Your task to perform on an android device: open a bookmark in the chrome app Image 0: 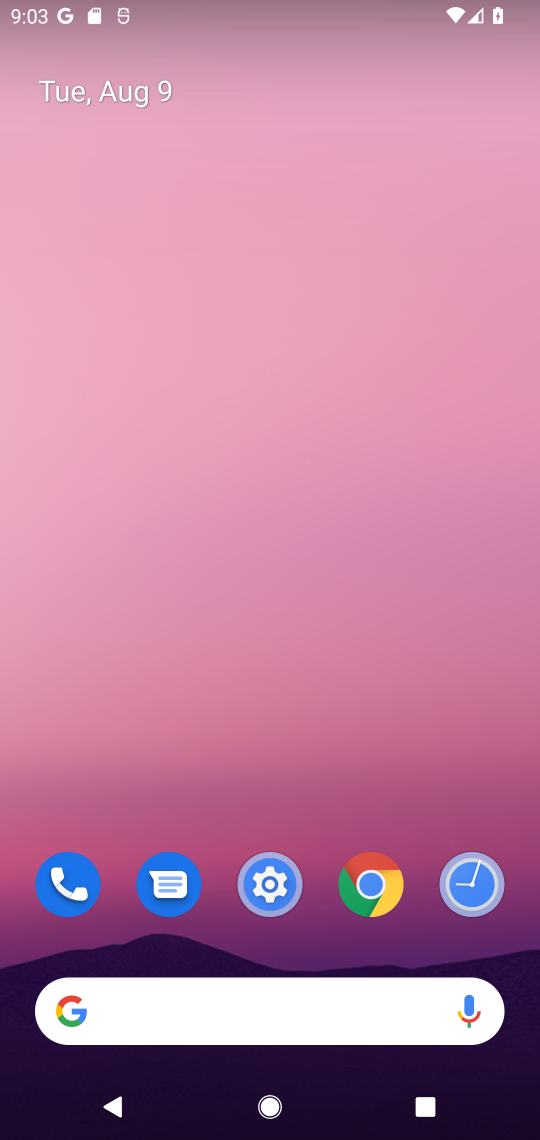
Step 0: drag from (324, 847) to (331, 215)
Your task to perform on an android device: open a bookmark in the chrome app Image 1: 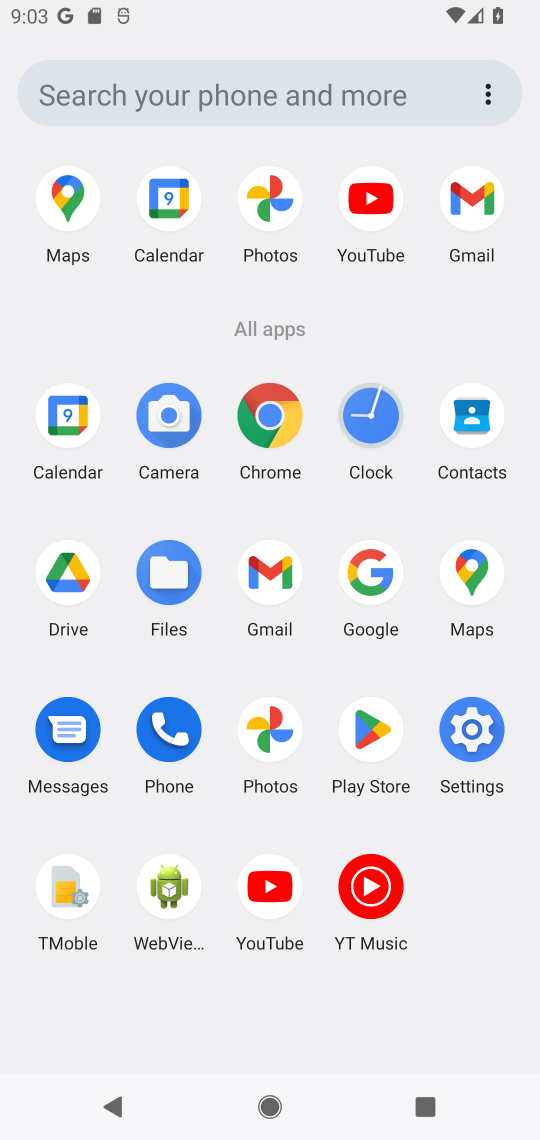
Step 1: click (279, 400)
Your task to perform on an android device: open a bookmark in the chrome app Image 2: 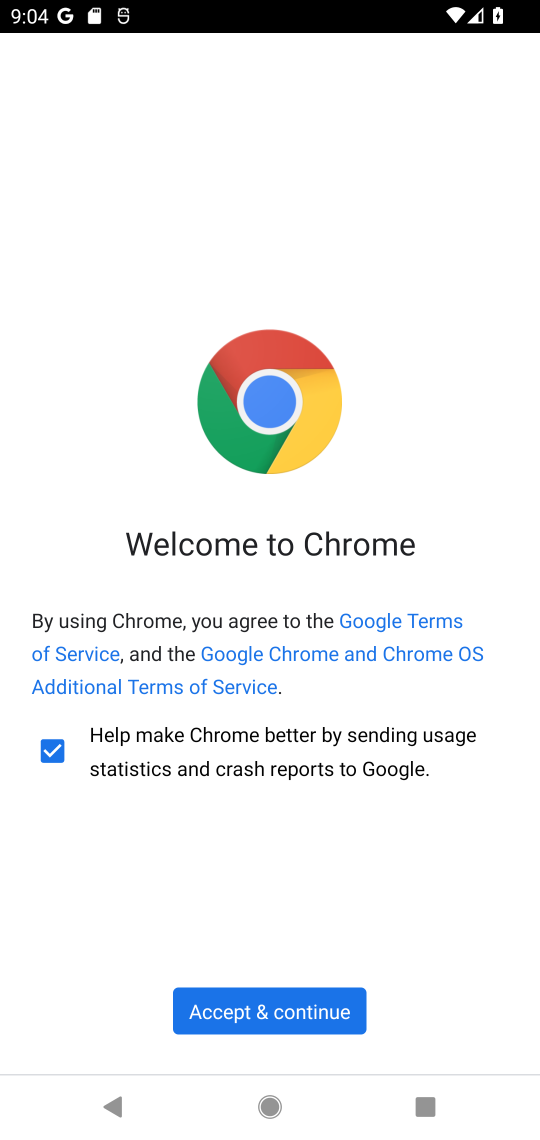
Step 2: click (287, 1000)
Your task to perform on an android device: open a bookmark in the chrome app Image 3: 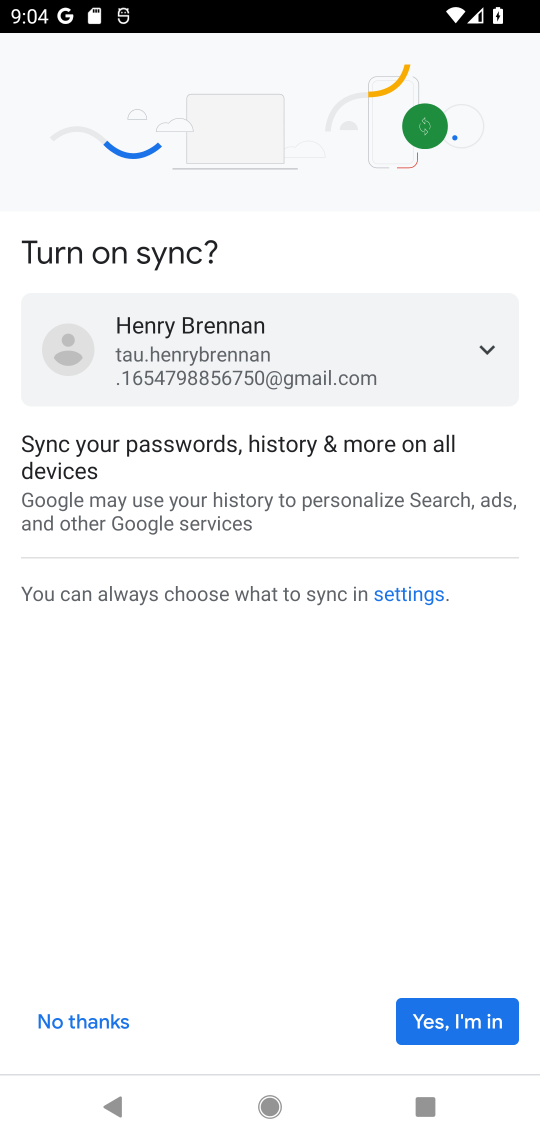
Step 3: click (458, 1031)
Your task to perform on an android device: open a bookmark in the chrome app Image 4: 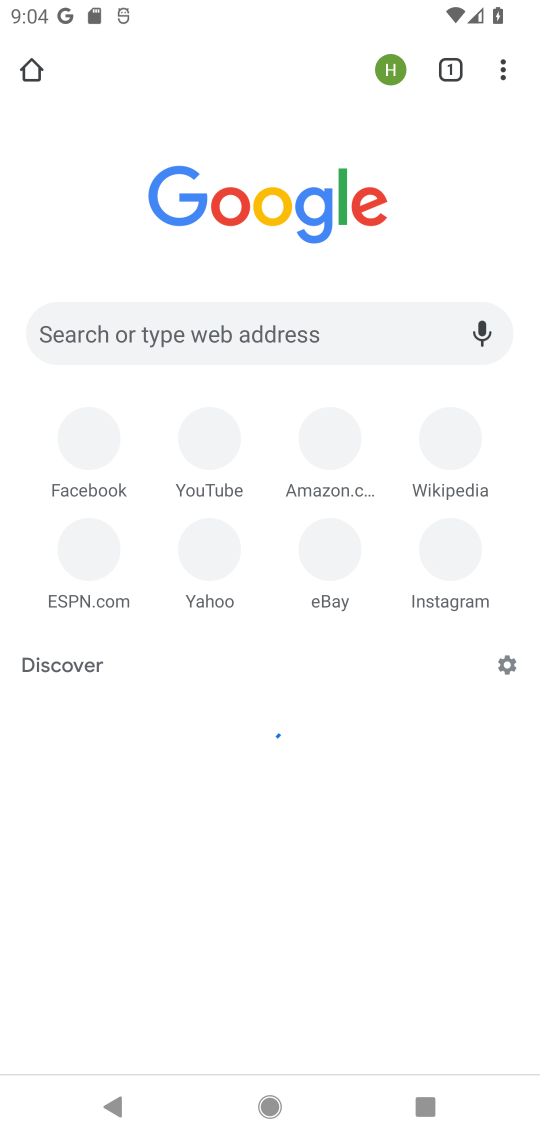
Step 4: click (512, 73)
Your task to perform on an android device: open a bookmark in the chrome app Image 5: 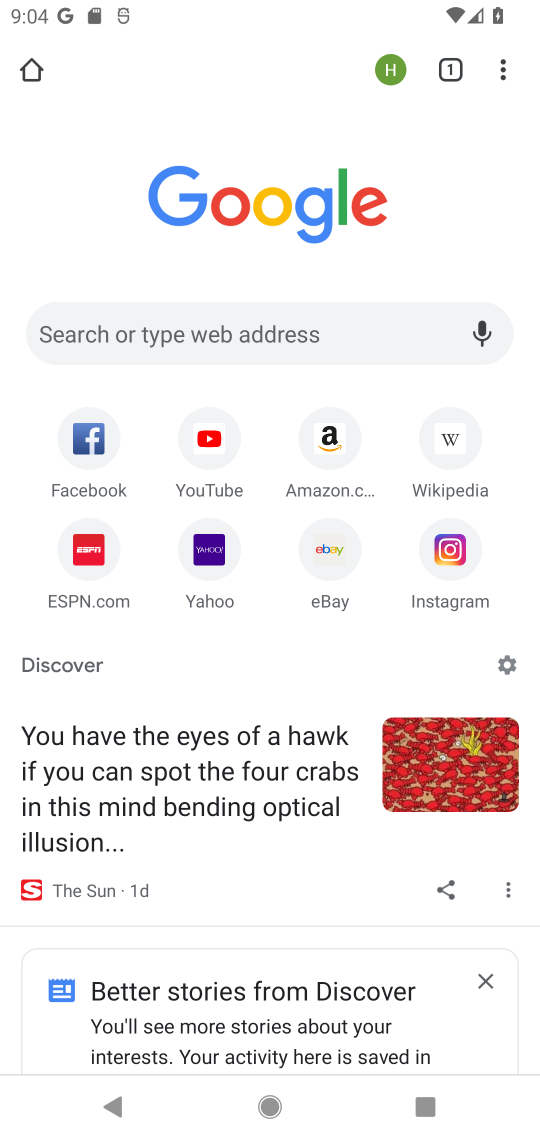
Step 5: click (500, 68)
Your task to perform on an android device: open a bookmark in the chrome app Image 6: 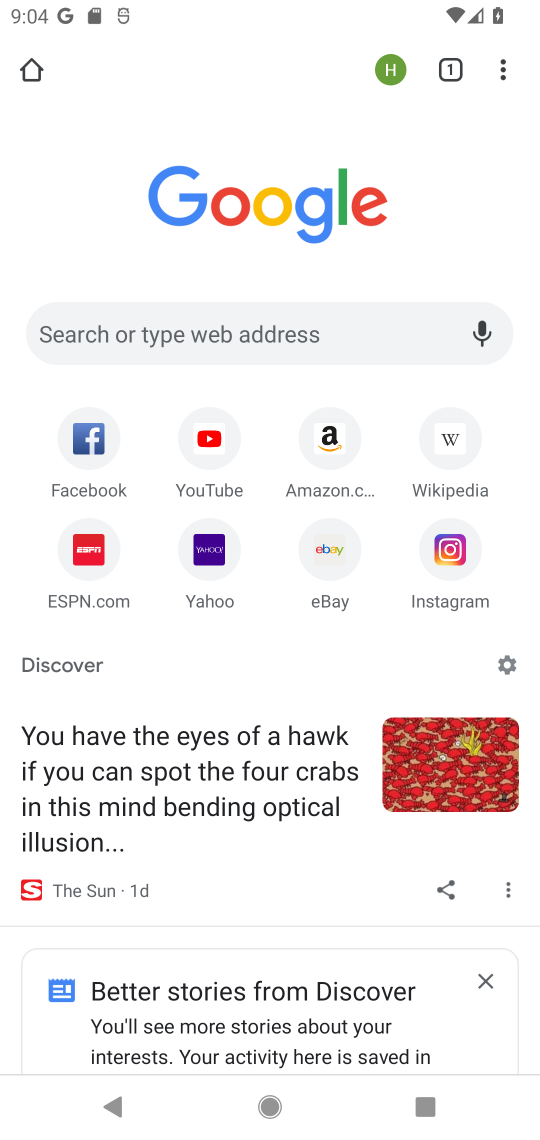
Step 6: click (497, 67)
Your task to perform on an android device: open a bookmark in the chrome app Image 7: 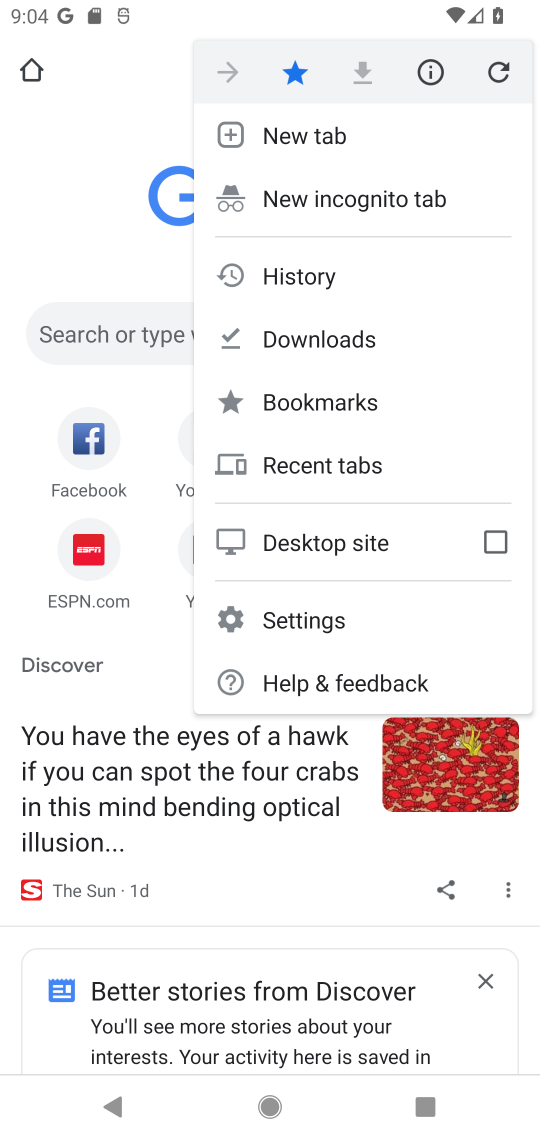
Step 7: click (323, 419)
Your task to perform on an android device: open a bookmark in the chrome app Image 8: 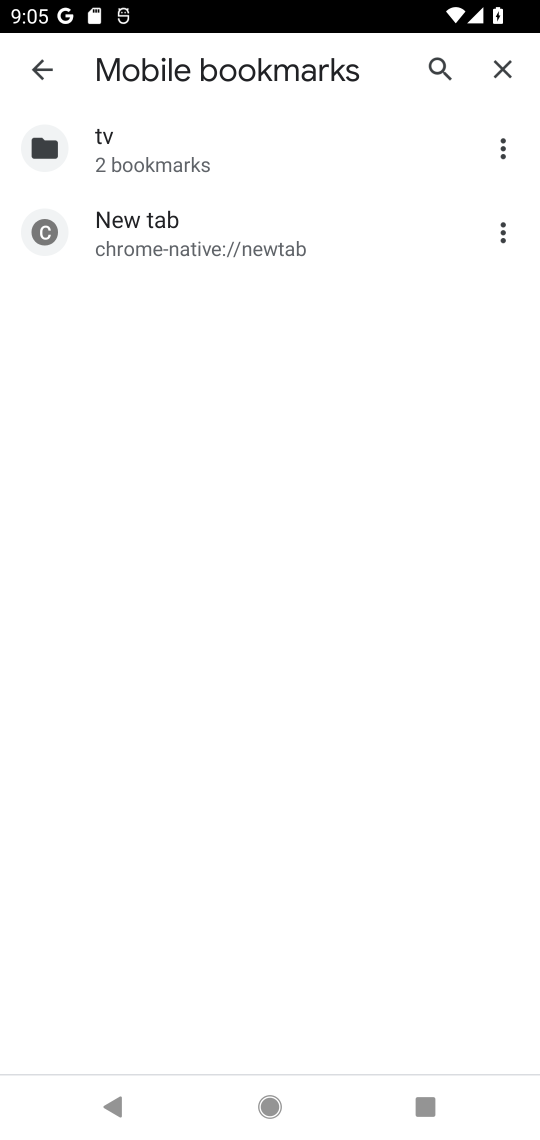
Step 8: task complete